Your task to perform on an android device: Show me recent news Image 0: 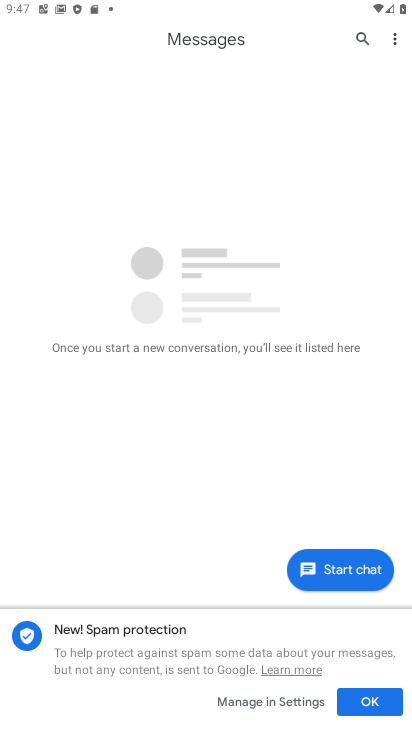
Step 0: press home button
Your task to perform on an android device: Show me recent news Image 1: 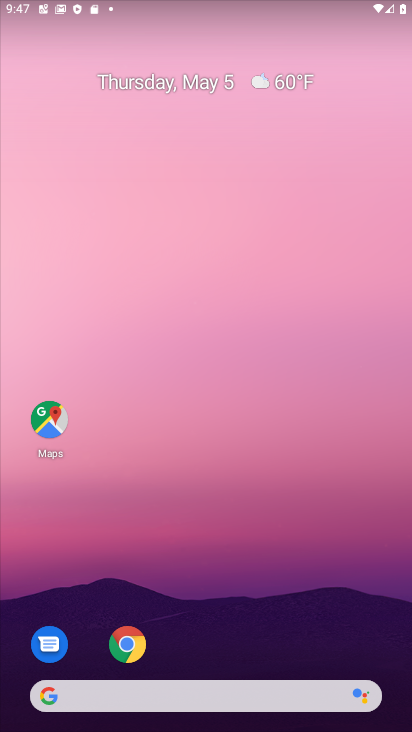
Step 1: drag from (249, 635) to (256, 177)
Your task to perform on an android device: Show me recent news Image 2: 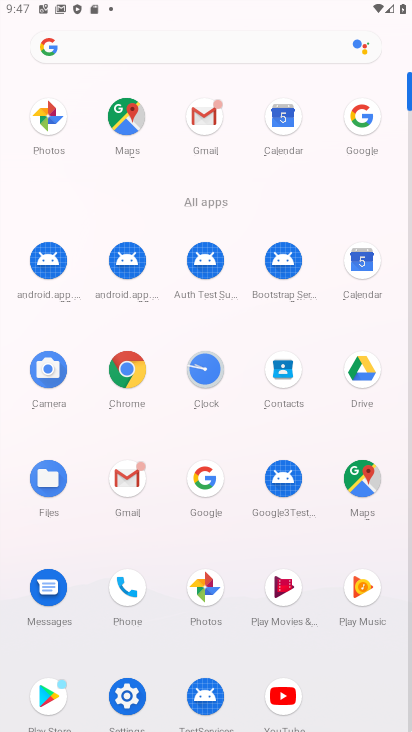
Step 2: click (130, 378)
Your task to perform on an android device: Show me recent news Image 3: 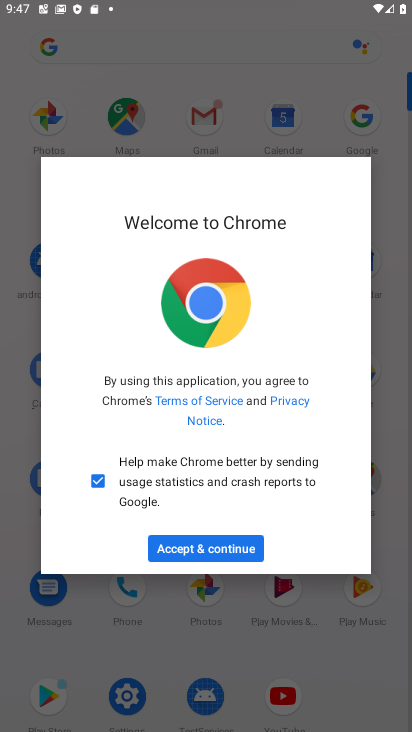
Step 3: click (250, 548)
Your task to perform on an android device: Show me recent news Image 4: 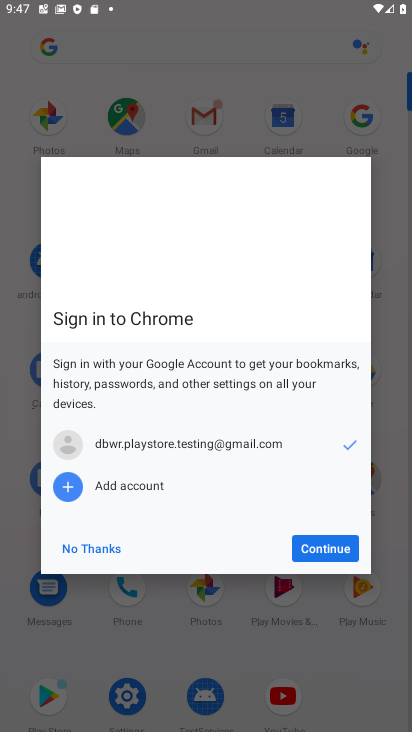
Step 4: click (336, 548)
Your task to perform on an android device: Show me recent news Image 5: 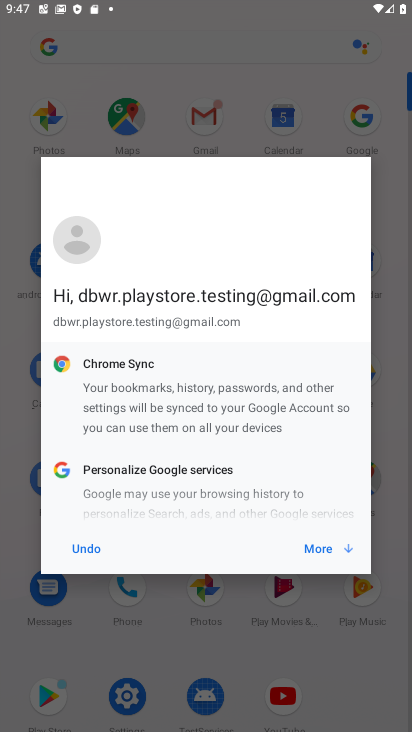
Step 5: click (319, 548)
Your task to perform on an android device: Show me recent news Image 6: 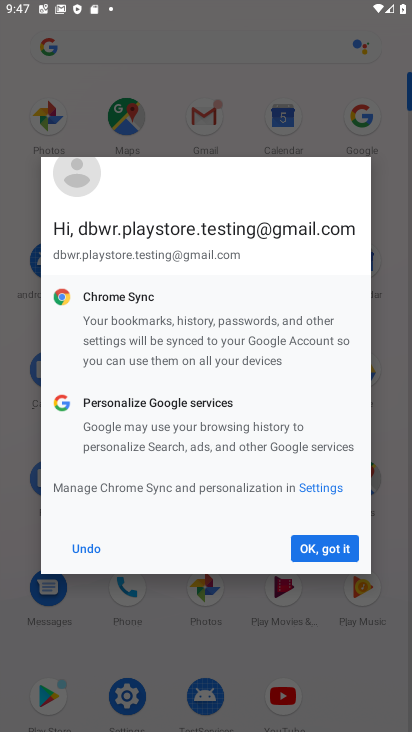
Step 6: click (319, 548)
Your task to perform on an android device: Show me recent news Image 7: 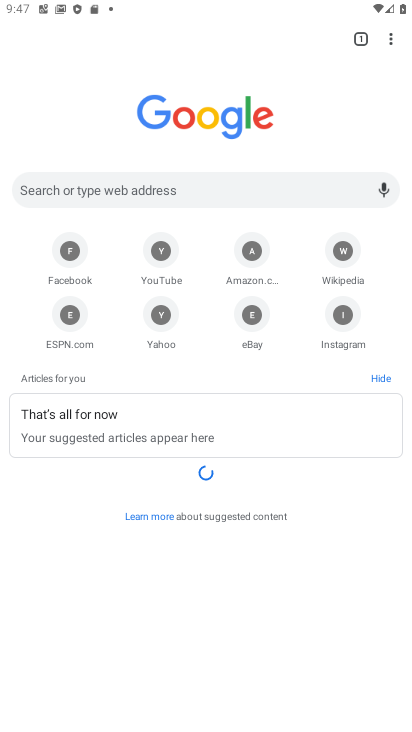
Step 7: click (159, 186)
Your task to perform on an android device: Show me recent news Image 8: 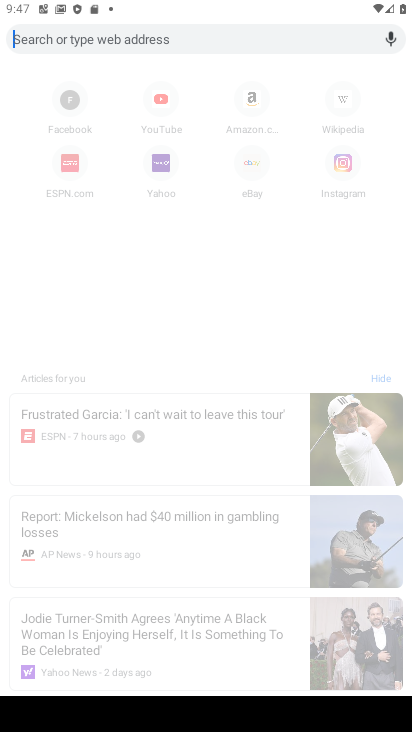
Step 8: type "recent news"
Your task to perform on an android device: Show me recent news Image 9: 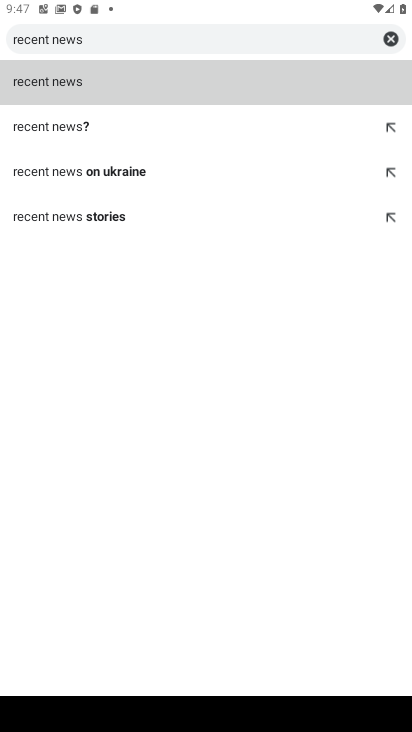
Step 9: click (49, 83)
Your task to perform on an android device: Show me recent news Image 10: 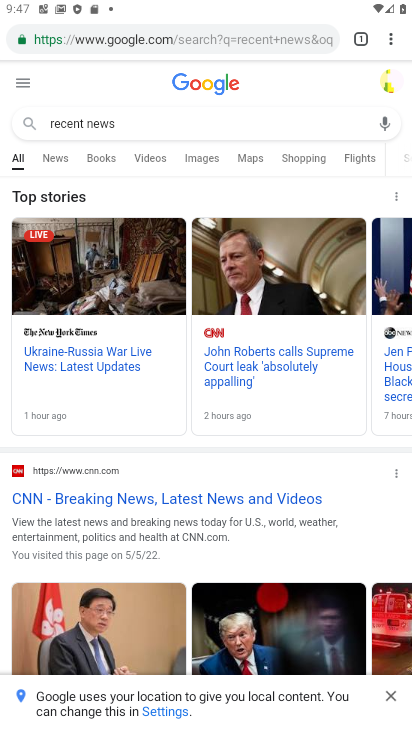
Step 10: task complete